Your task to perform on an android device: Open privacy settings Image 0: 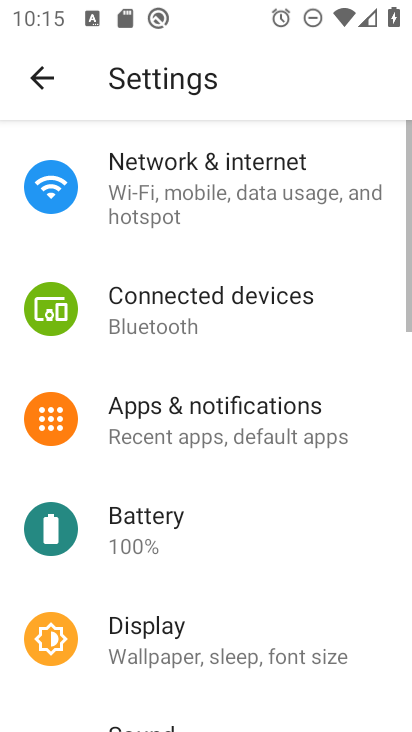
Step 0: drag from (176, 328) to (175, 229)
Your task to perform on an android device: Open privacy settings Image 1: 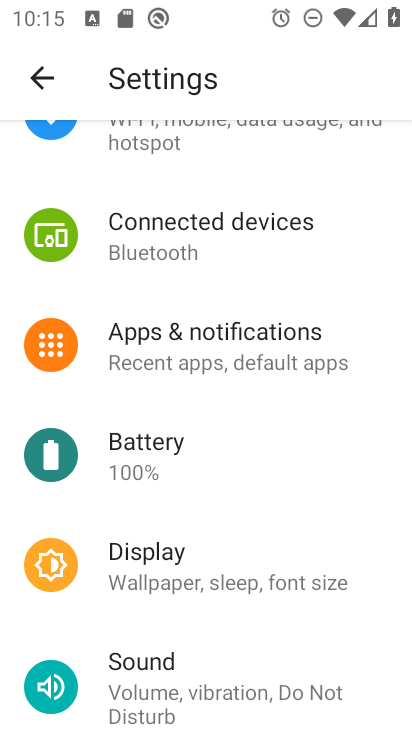
Step 1: drag from (233, 614) to (216, 212)
Your task to perform on an android device: Open privacy settings Image 2: 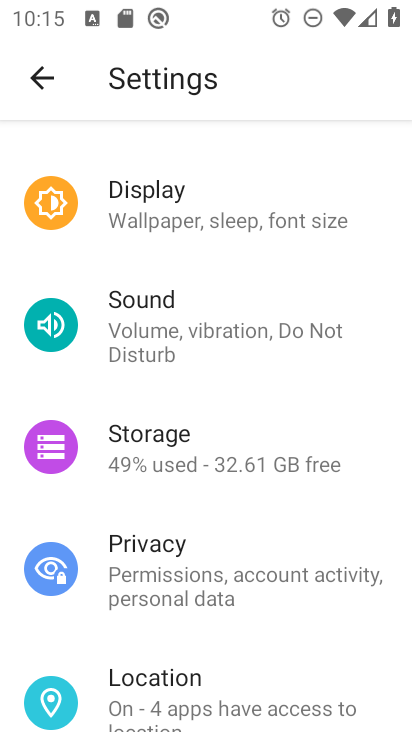
Step 2: click (209, 551)
Your task to perform on an android device: Open privacy settings Image 3: 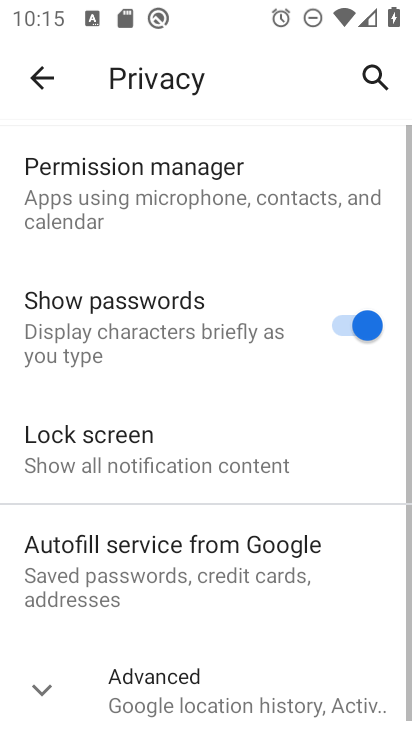
Step 3: task complete